Your task to perform on an android device: Search for "dell xps" on bestbuy, select the first entry, and add it to the cart. Image 0: 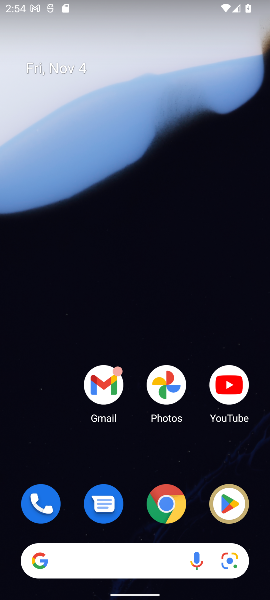
Step 0: click (174, 508)
Your task to perform on an android device: Search for "dell xps" on bestbuy, select the first entry, and add it to the cart. Image 1: 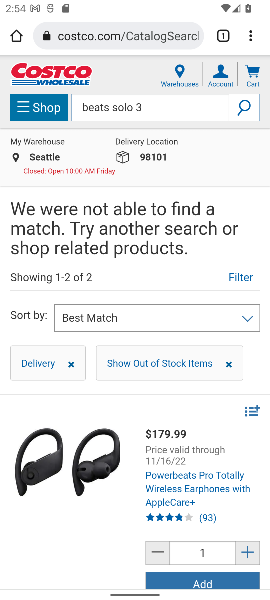
Step 1: click (94, 38)
Your task to perform on an android device: Search for "dell xps" on bestbuy, select the first entry, and add it to the cart. Image 2: 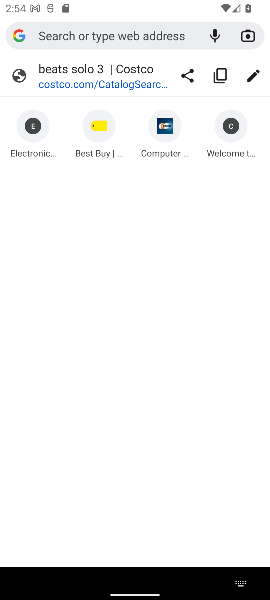
Step 2: click (107, 130)
Your task to perform on an android device: Search for "dell xps" on bestbuy, select the first entry, and add it to the cart. Image 3: 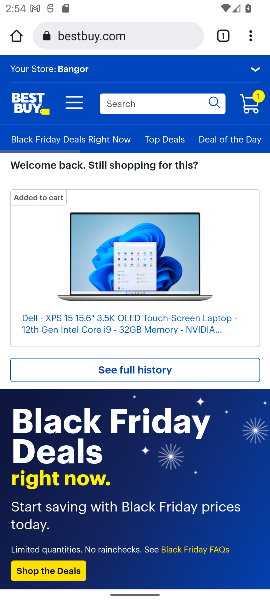
Step 3: click (116, 105)
Your task to perform on an android device: Search for "dell xps" on bestbuy, select the first entry, and add it to the cart. Image 4: 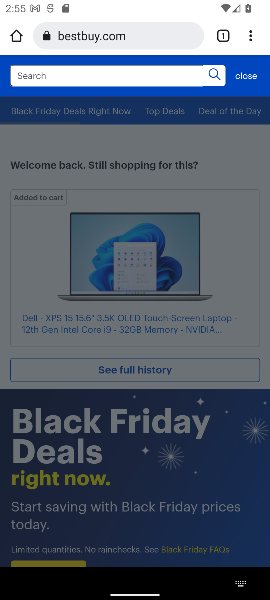
Step 4: type "dell xps"
Your task to perform on an android device: Search for "dell xps" on bestbuy, select the first entry, and add it to the cart. Image 5: 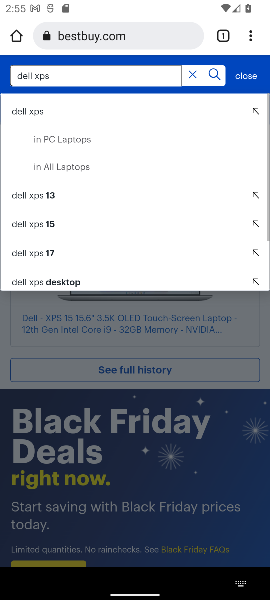
Step 5: click (36, 115)
Your task to perform on an android device: Search for "dell xps" on bestbuy, select the first entry, and add it to the cart. Image 6: 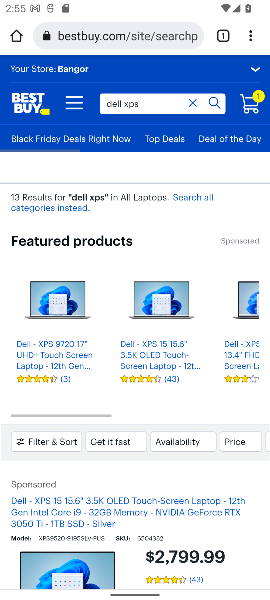
Step 6: drag from (104, 460) to (121, 206)
Your task to perform on an android device: Search for "dell xps" on bestbuy, select the first entry, and add it to the cart. Image 7: 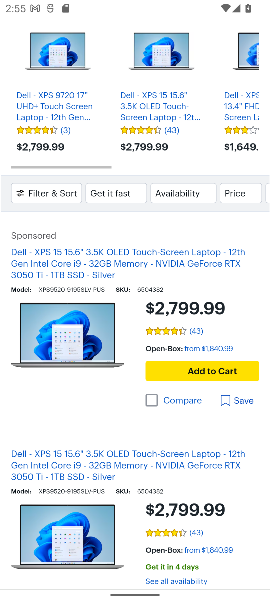
Step 7: click (208, 374)
Your task to perform on an android device: Search for "dell xps" on bestbuy, select the first entry, and add it to the cart. Image 8: 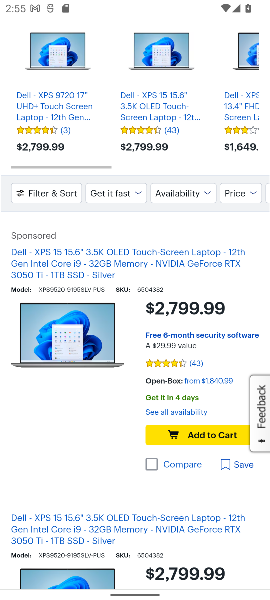
Step 8: click (203, 432)
Your task to perform on an android device: Search for "dell xps" on bestbuy, select the first entry, and add it to the cart. Image 9: 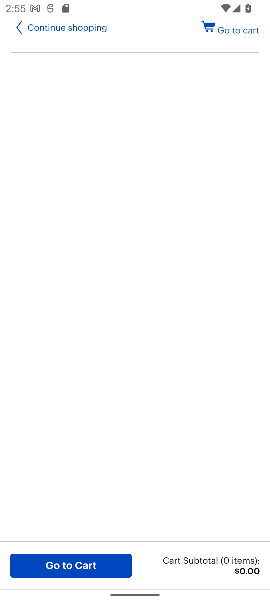
Step 9: click (61, 345)
Your task to perform on an android device: Search for "dell xps" on bestbuy, select the first entry, and add it to the cart. Image 10: 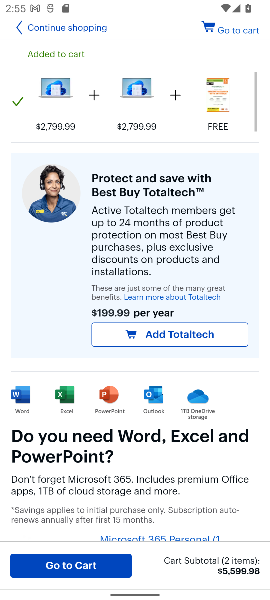
Step 10: click (215, 38)
Your task to perform on an android device: Search for "dell xps" on bestbuy, select the first entry, and add it to the cart. Image 11: 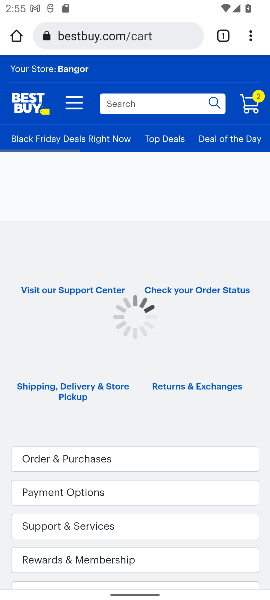
Step 11: task complete